Your task to perform on an android device: turn pop-ups on in chrome Image 0: 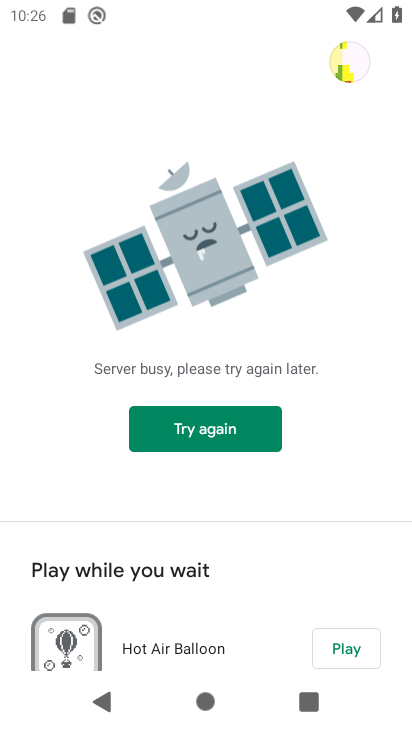
Step 0: press home button
Your task to perform on an android device: turn pop-ups on in chrome Image 1: 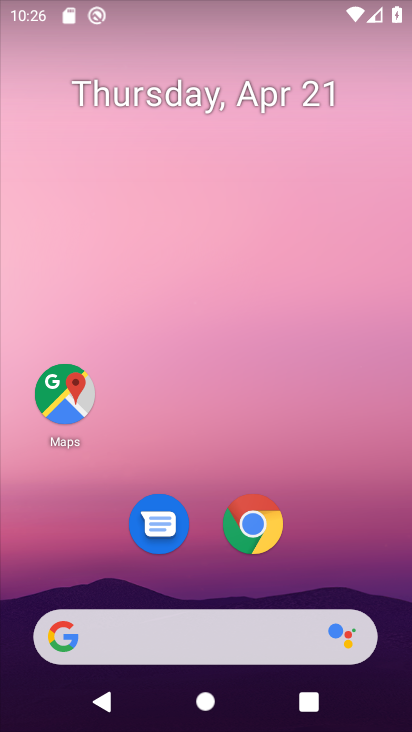
Step 1: click (254, 523)
Your task to perform on an android device: turn pop-ups on in chrome Image 2: 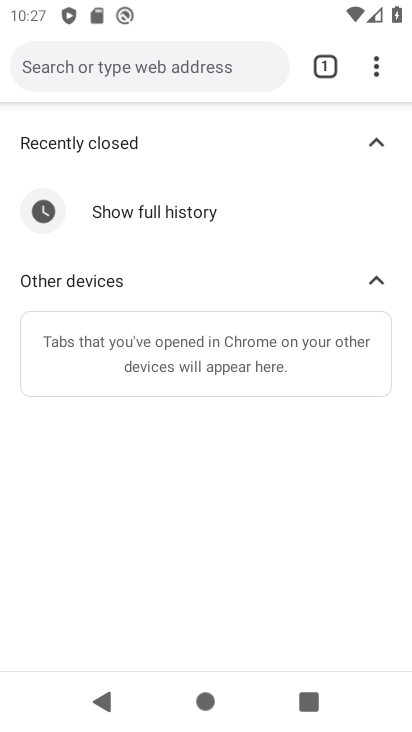
Step 2: click (374, 65)
Your task to perform on an android device: turn pop-ups on in chrome Image 3: 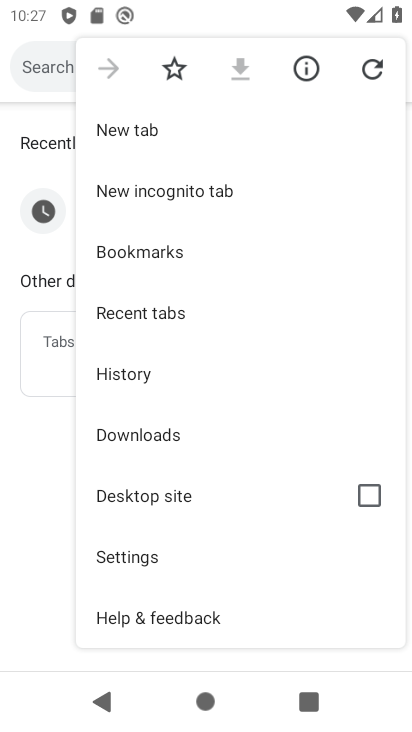
Step 3: click (223, 548)
Your task to perform on an android device: turn pop-ups on in chrome Image 4: 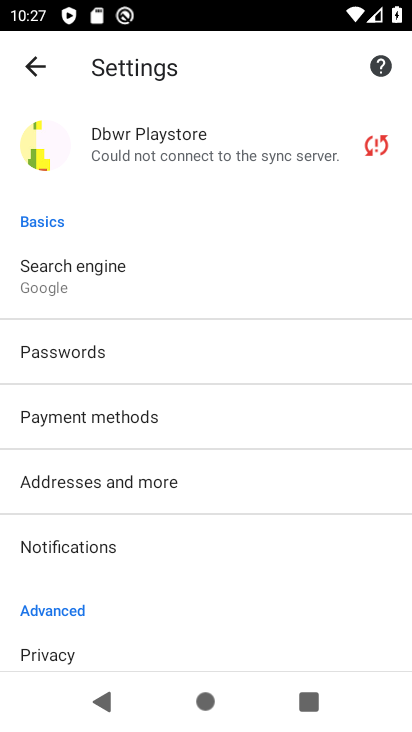
Step 4: drag from (214, 617) to (247, 236)
Your task to perform on an android device: turn pop-ups on in chrome Image 5: 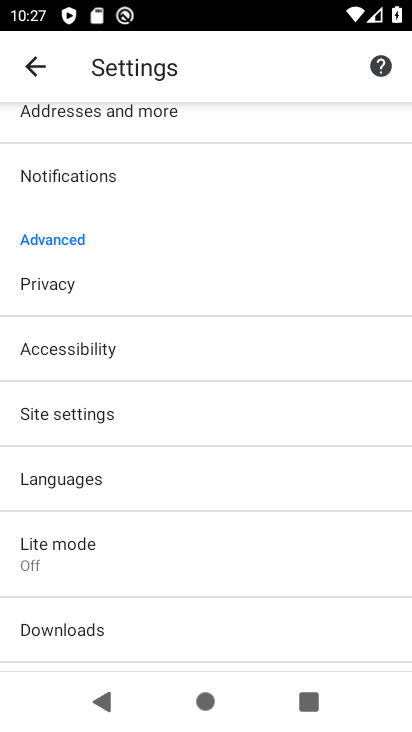
Step 5: click (195, 400)
Your task to perform on an android device: turn pop-ups on in chrome Image 6: 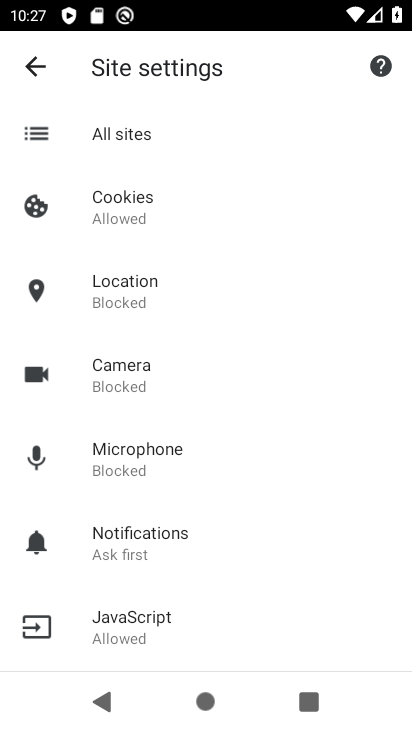
Step 6: drag from (275, 574) to (302, 210)
Your task to perform on an android device: turn pop-ups on in chrome Image 7: 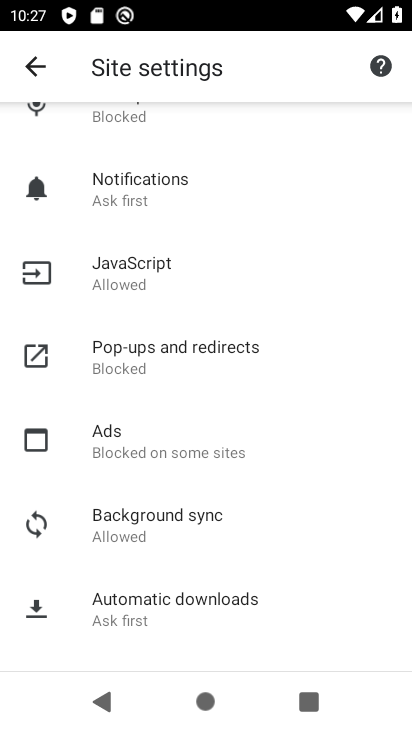
Step 7: click (238, 354)
Your task to perform on an android device: turn pop-ups on in chrome Image 8: 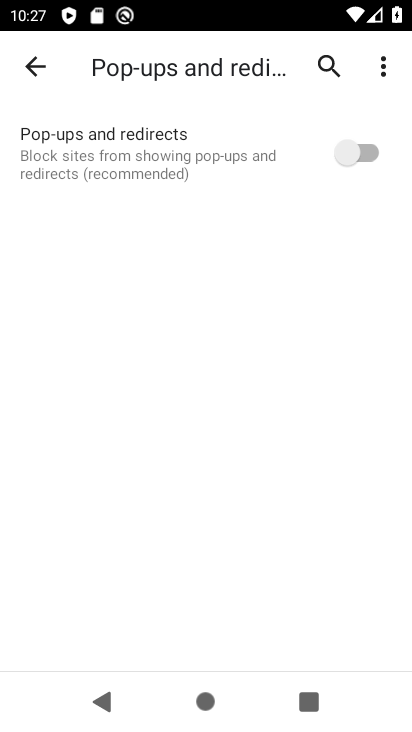
Step 8: click (365, 143)
Your task to perform on an android device: turn pop-ups on in chrome Image 9: 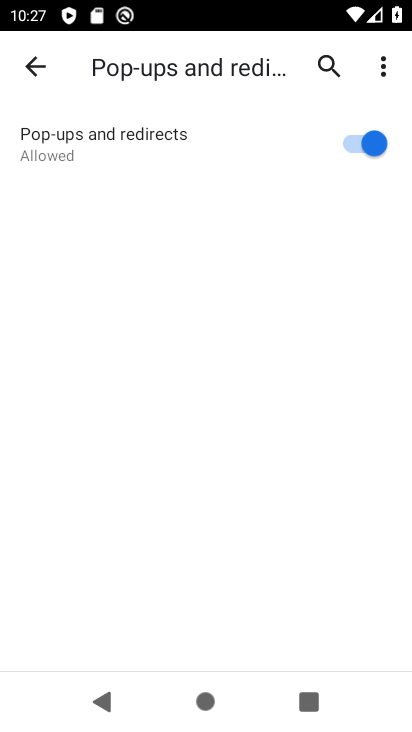
Step 9: task complete